Your task to perform on an android device: Do I have any events this weekend? Image 0: 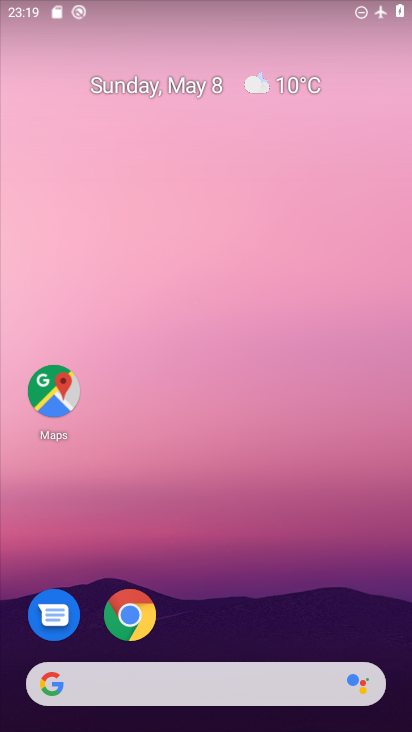
Step 0: drag from (309, 621) to (274, 151)
Your task to perform on an android device: Do I have any events this weekend? Image 1: 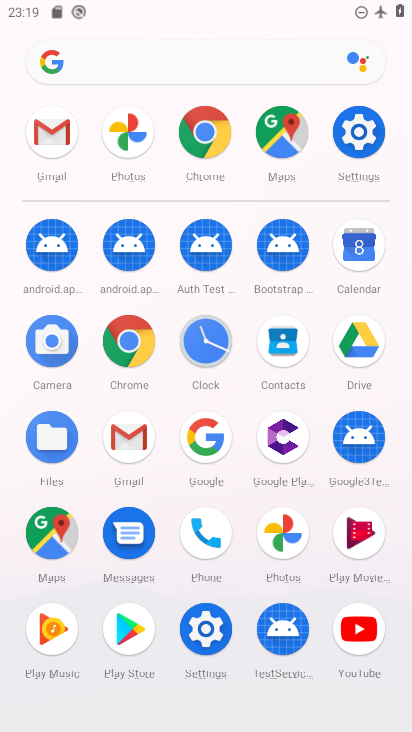
Step 1: click (355, 251)
Your task to perform on an android device: Do I have any events this weekend? Image 2: 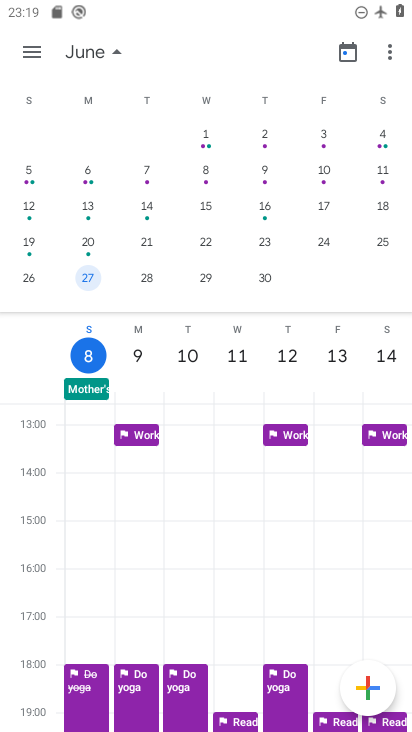
Step 2: task complete